Your task to perform on an android device: check data usage Image 0: 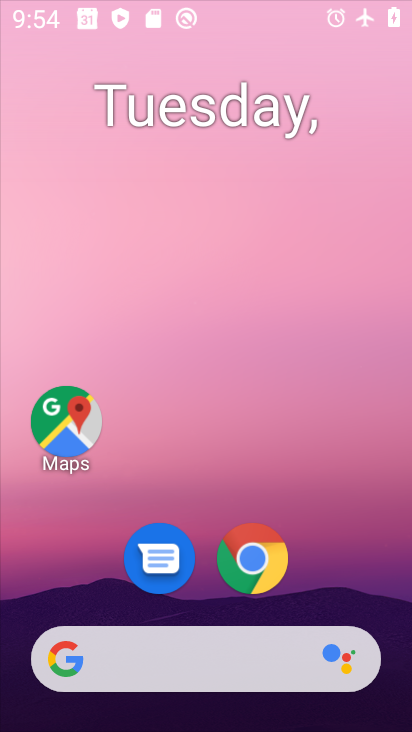
Step 0: drag from (315, 645) to (153, 82)
Your task to perform on an android device: check data usage Image 1: 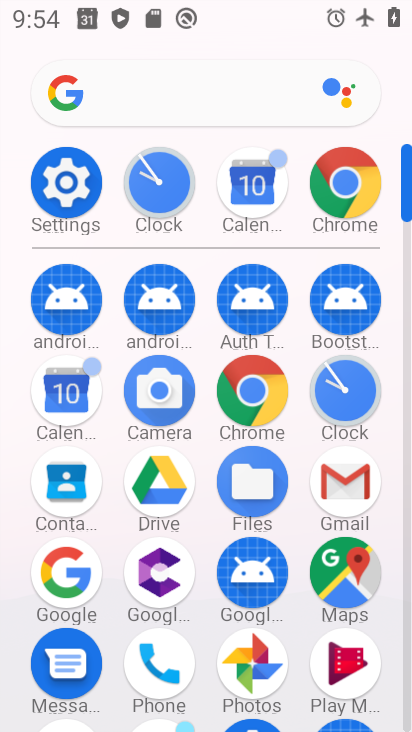
Step 1: click (75, 180)
Your task to perform on an android device: check data usage Image 2: 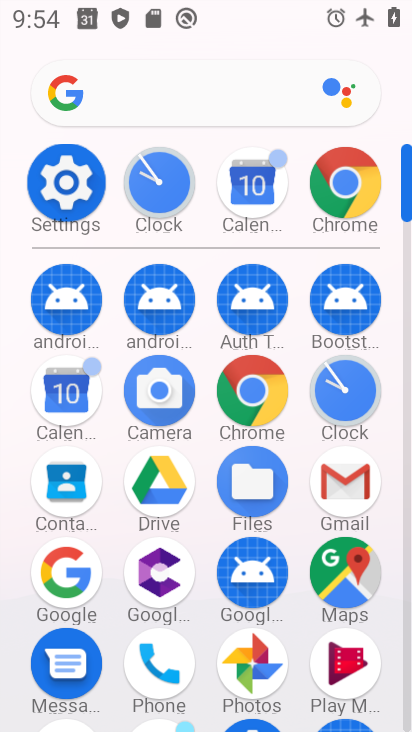
Step 2: click (75, 180)
Your task to perform on an android device: check data usage Image 3: 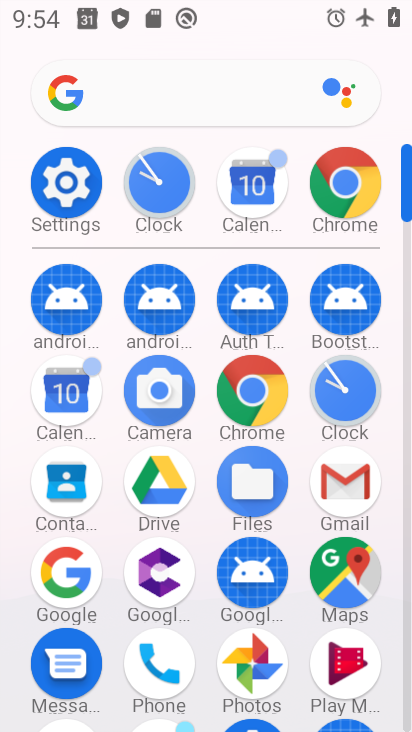
Step 3: click (66, 202)
Your task to perform on an android device: check data usage Image 4: 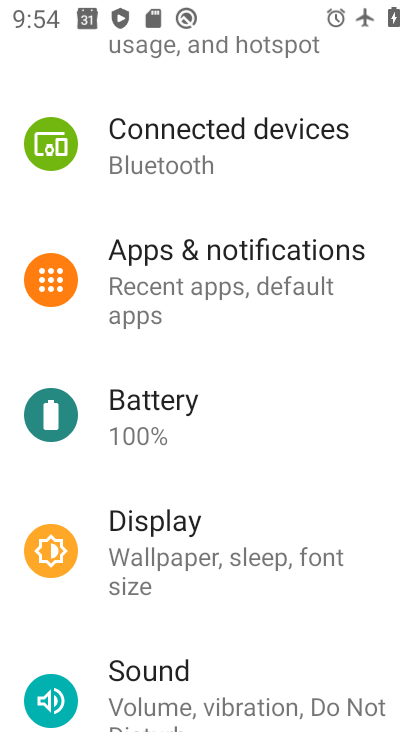
Step 4: click (237, 260)
Your task to perform on an android device: check data usage Image 5: 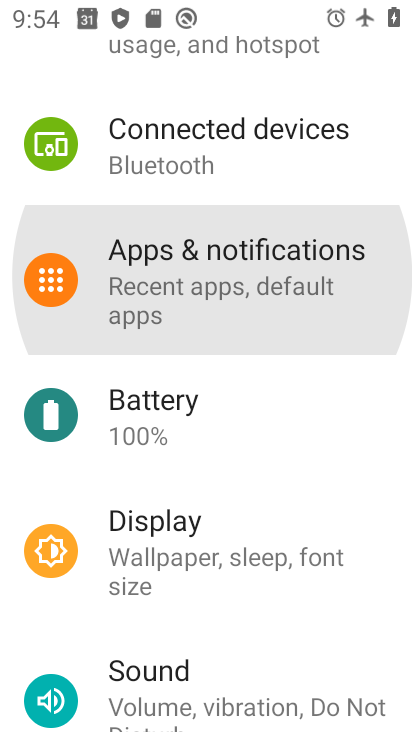
Step 5: click (237, 260)
Your task to perform on an android device: check data usage Image 6: 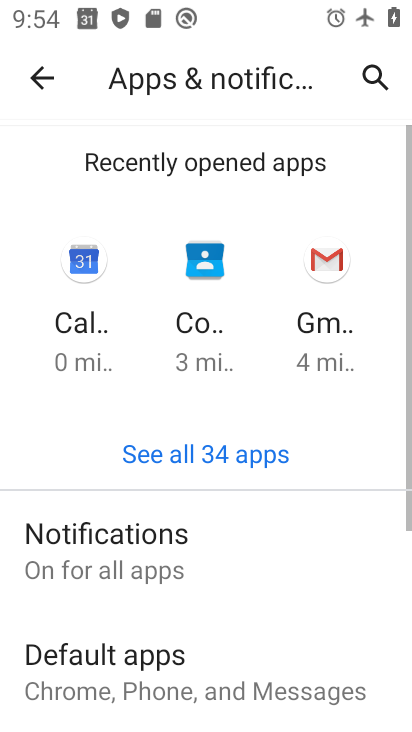
Step 6: click (222, 273)
Your task to perform on an android device: check data usage Image 7: 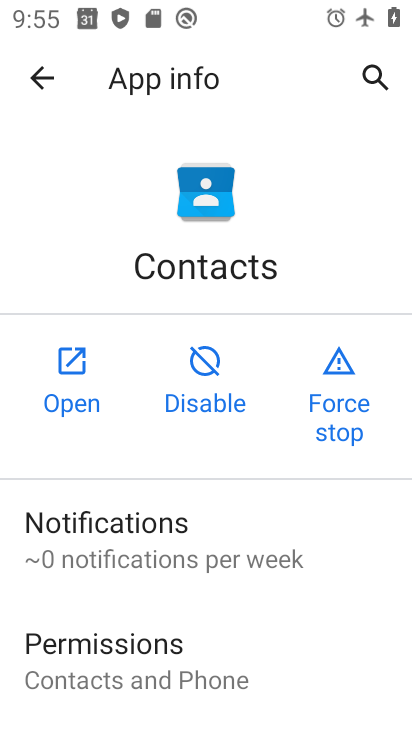
Step 7: press back button
Your task to perform on an android device: check data usage Image 8: 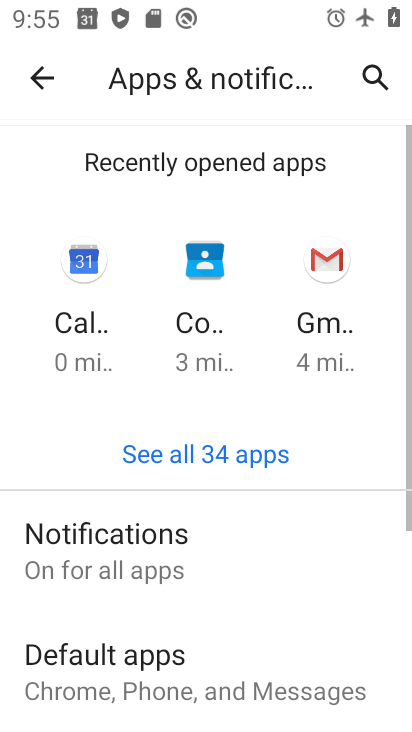
Step 8: click (38, 74)
Your task to perform on an android device: check data usage Image 9: 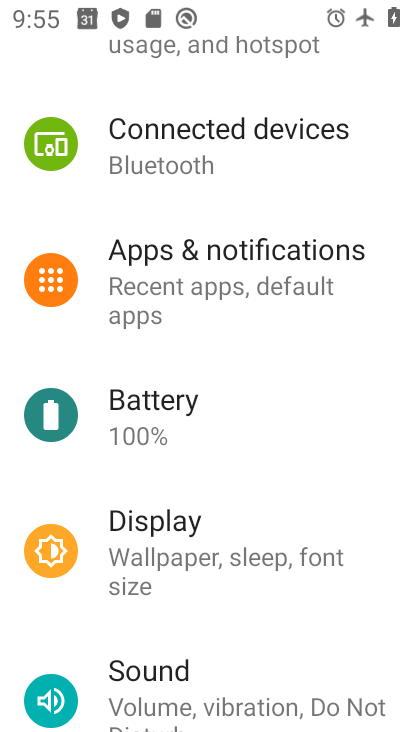
Step 9: drag from (185, 109) to (255, 434)
Your task to perform on an android device: check data usage Image 10: 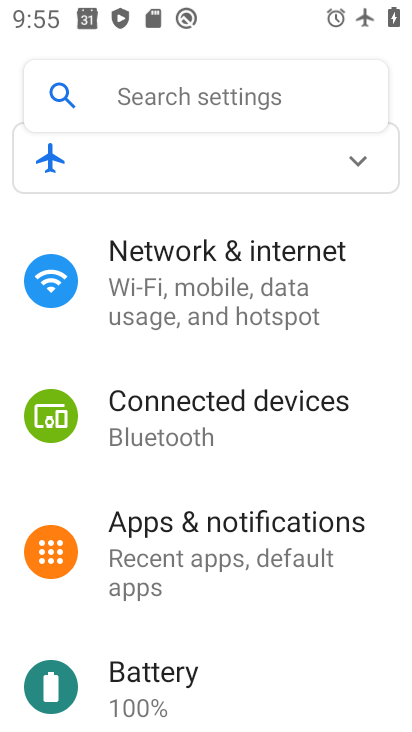
Step 10: click (198, 291)
Your task to perform on an android device: check data usage Image 11: 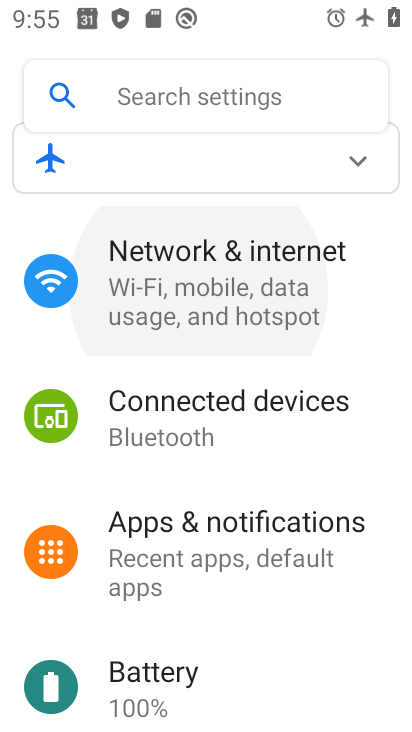
Step 11: click (198, 291)
Your task to perform on an android device: check data usage Image 12: 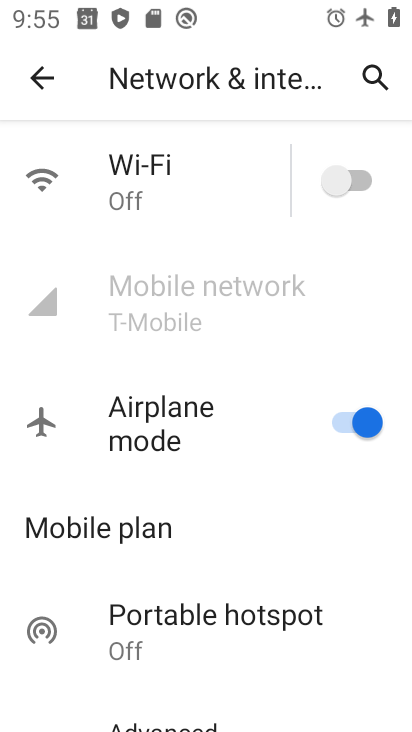
Step 12: task complete